Your task to perform on an android device: Open Yahoo.com Image 0: 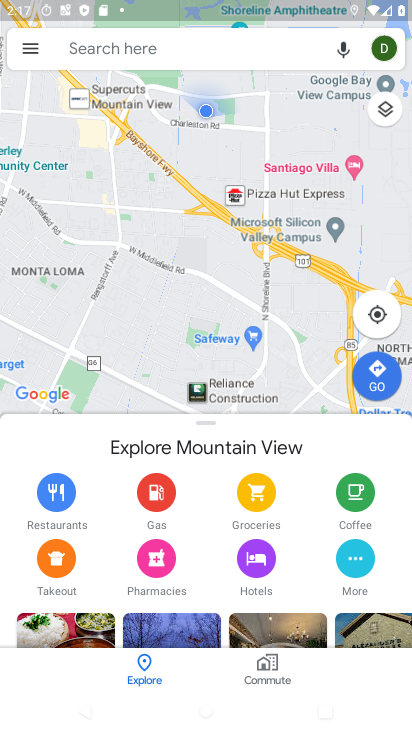
Step 0: click (132, 36)
Your task to perform on an android device: Open Yahoo.com Image 1: 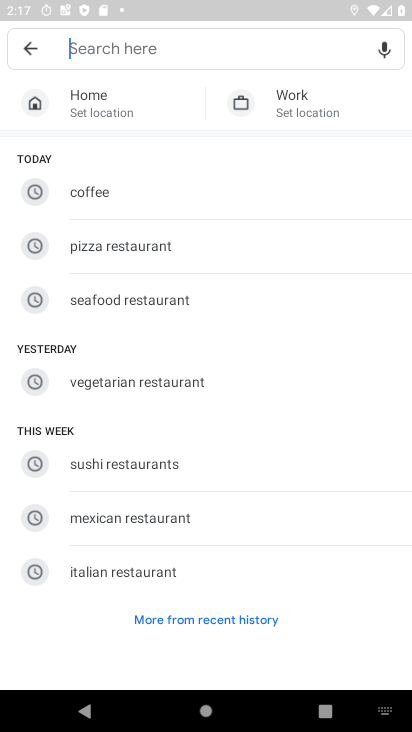
Step 1: type "Yahoo.com"
Your task to perform on an android device: Open Yahoo.com Image 2: 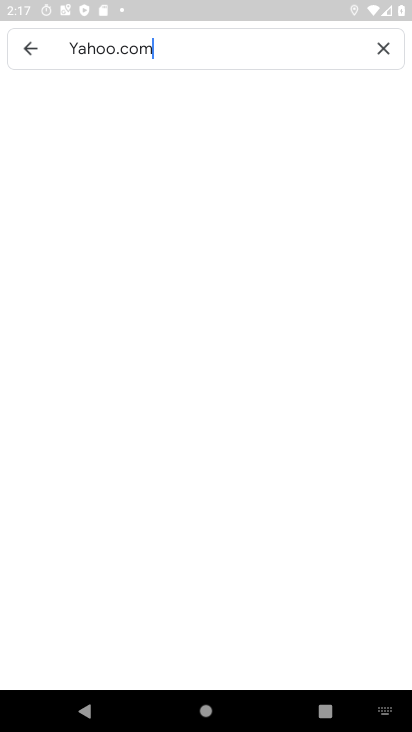
Step 2: type ""
Your task to perform on an android device: Open Yahoo.com Image 3: 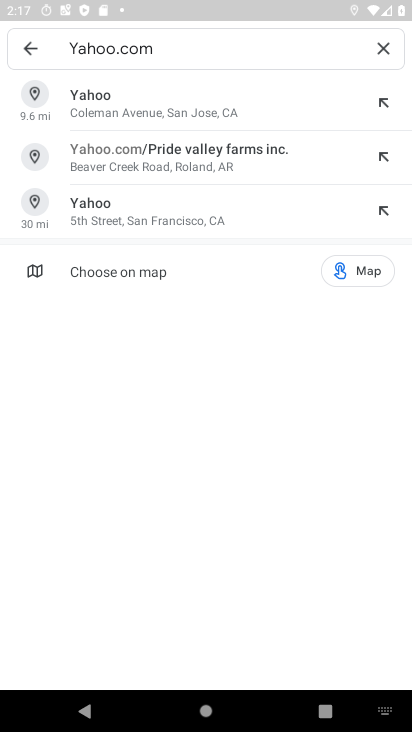
Step 3: click (111, 103)
Your task to perform on an android device: Open Yahoo.com Image 4: 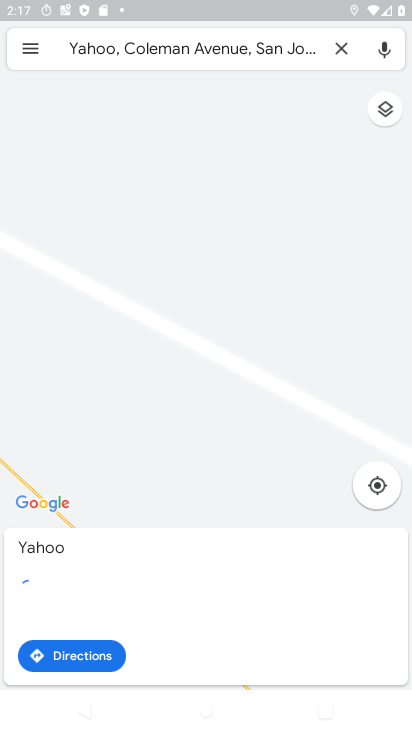
Step 4: task complete